Your task to perform on an android device: Open calendar and show me the second week of next month Image 0: 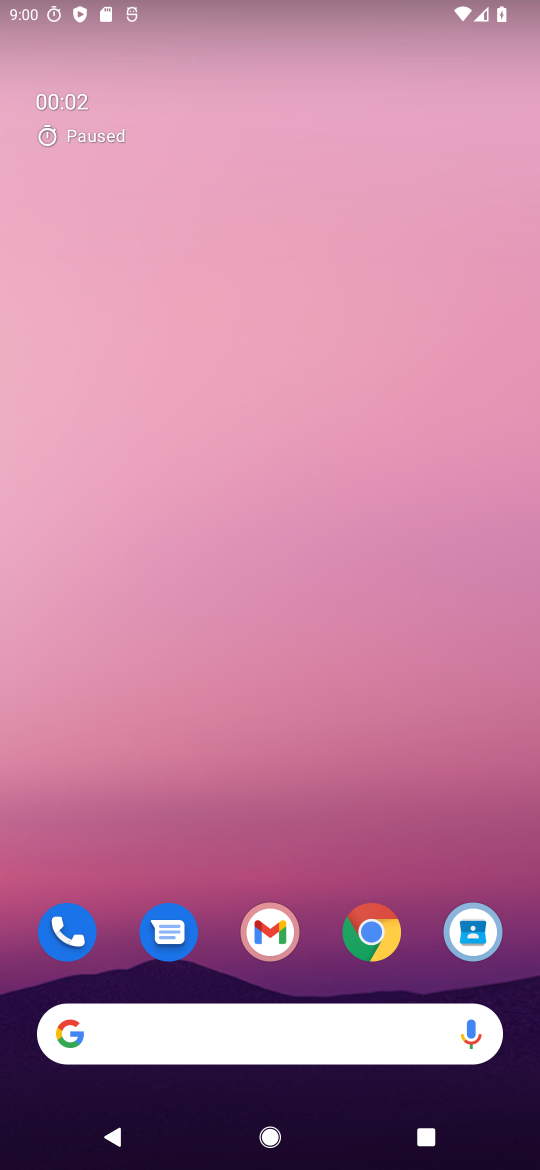
Step 0: drag from (280, 1004) to (441, 322)
Your task to perform on an android device: Open calendar and show me the second week of next month Image 1: 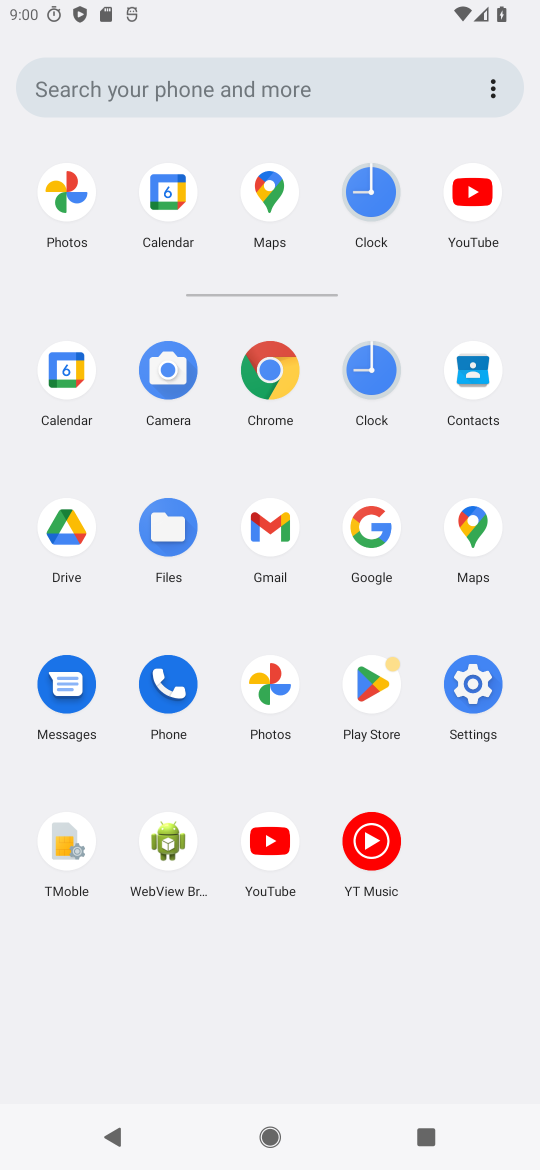
Step 1: click (157, 192)
Your task to perform on an android device: Open calendar and show me the second week of next month Image 2: 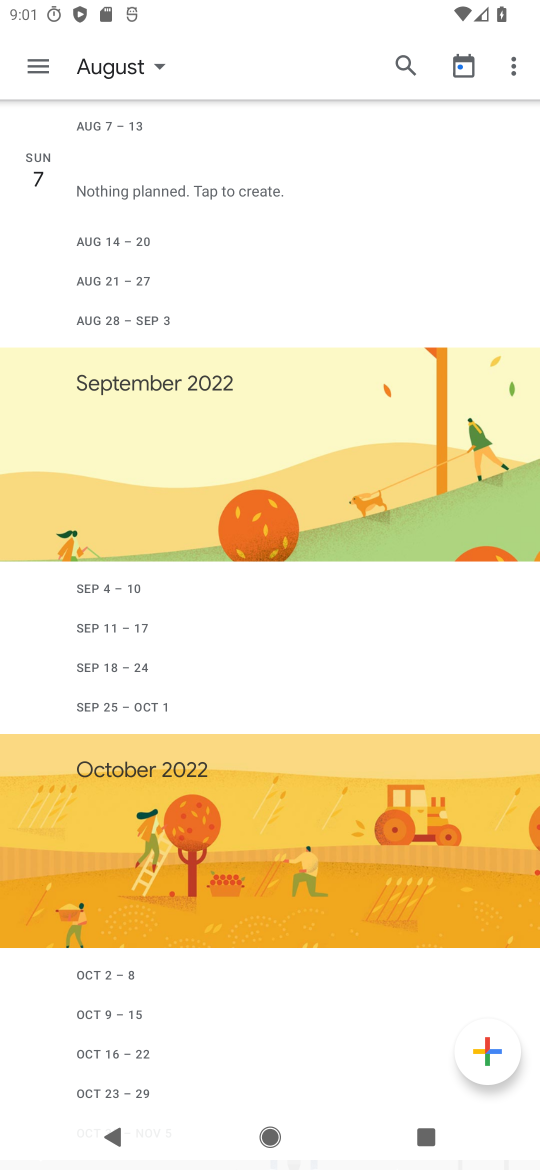
Step 2: click (124, 59)
Your task to perform on an android device: Open calendar and show me the second week of next month Image 3: 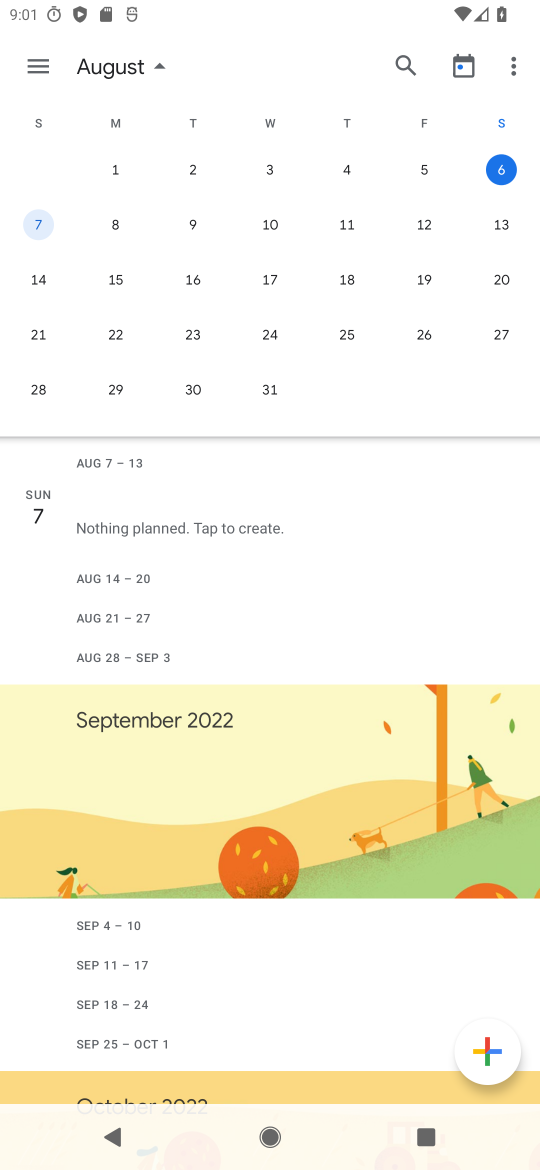
Step 3: drag from (496, 309) to (8, 425)
Your task to perform on an android device: Open calendar and show me the second week of next month Image 4: 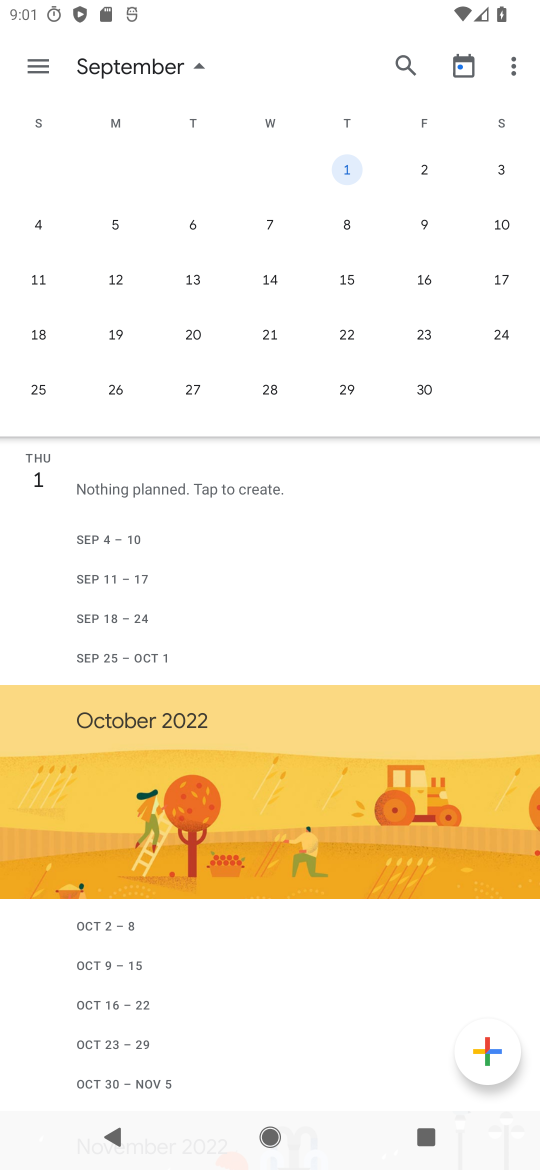
Step 4: click (40, 230)
Your task to perform on an android device: Open calendar and show me the second week of next month Image 5: 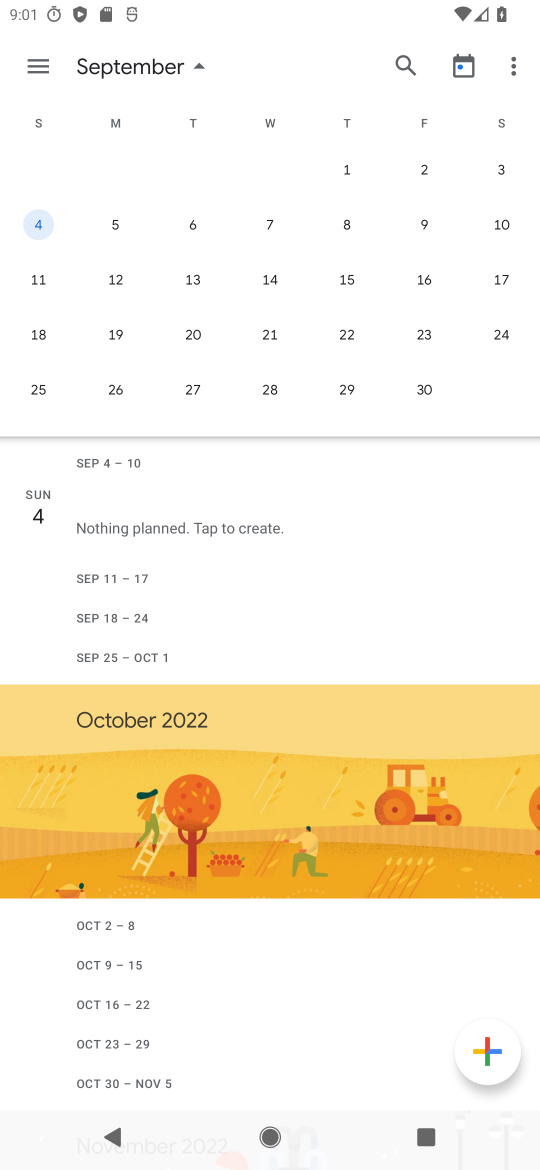
Step 5: click (37, 70)
Your task to perform on an android device: Open calendar and show me the second week of next month Image 6: 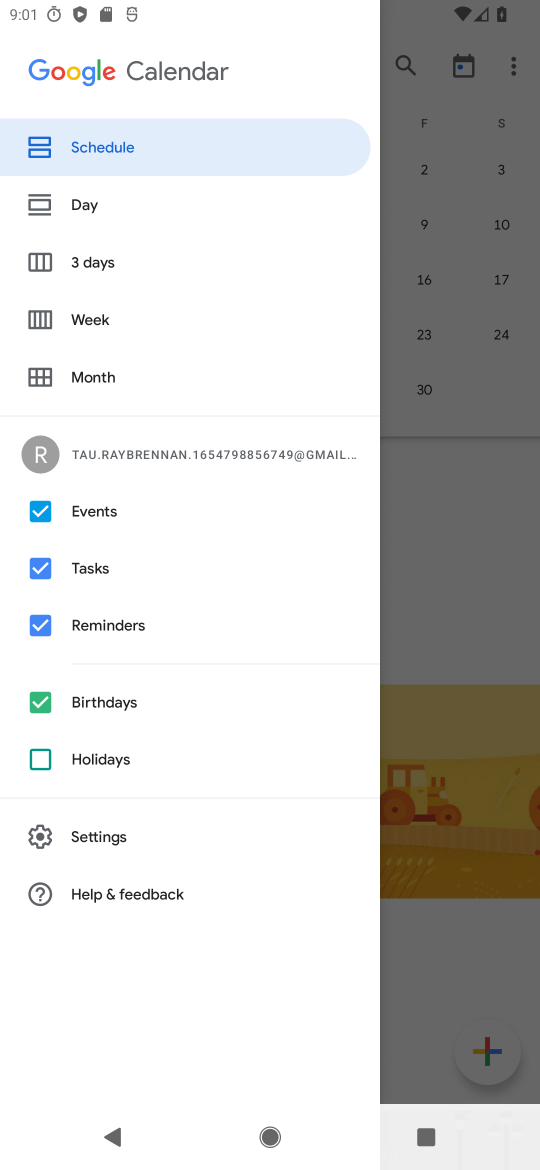
Step 6: click (99, 312)
Your task to perform on an android device: Open calendar and show me the second week of next month Image 7: 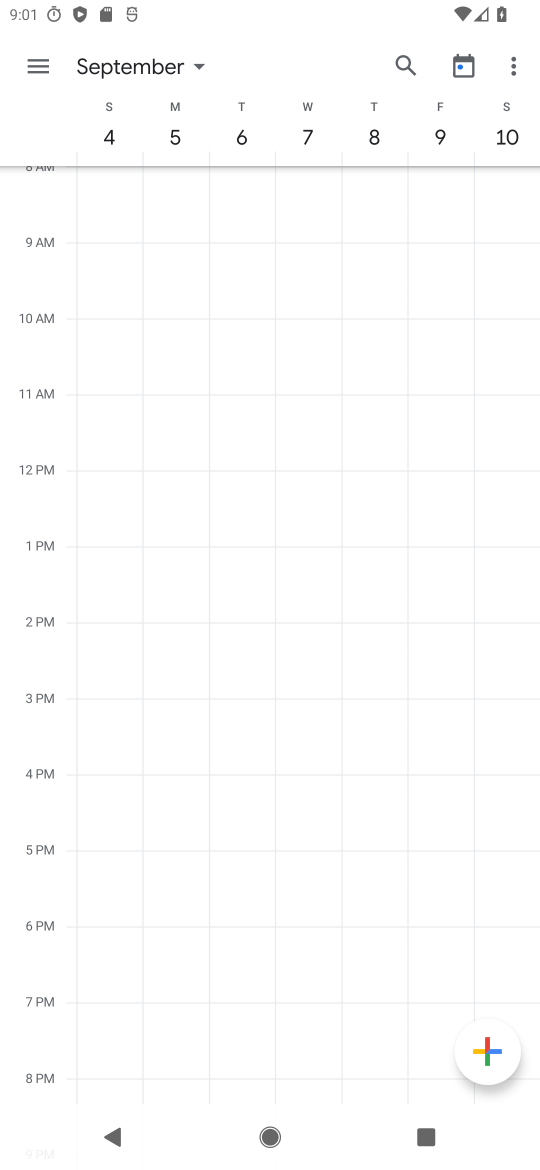
Step 7: task complete